Your task to perform on an android device: Go to network settings Image 0: 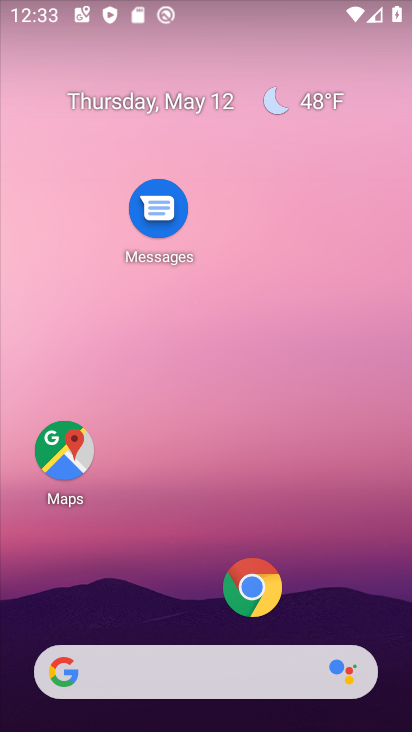
Step 0: drag from (241, 638) to (198, 54)
Your task to perform on an android device: Go to network settings Image 1: 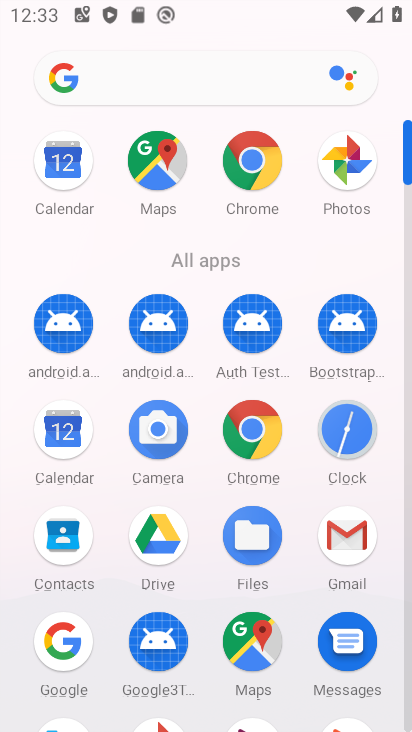
Step 1: drag from (210, 677) to (176, 207)
Your task to perform on an android device: Go to network settings Image 2: 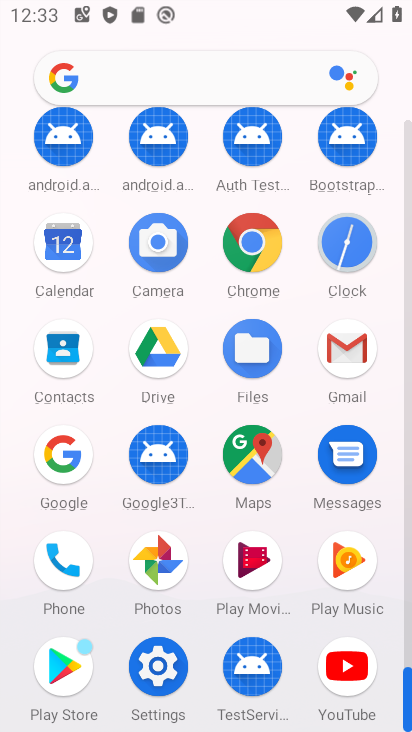
Step 2: click (155, 689)
Your task to perform on an android device: Go to network settings Image 3: 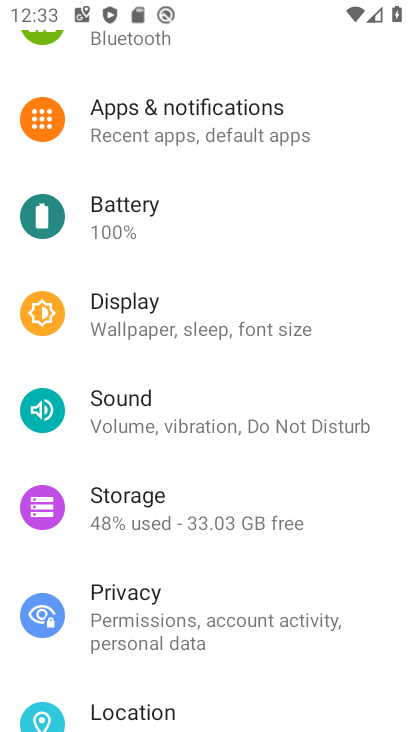
Step 3: drag from (176, 223) to (226, 731)
Your task to perform on an android device: Go to network settings Image 4: 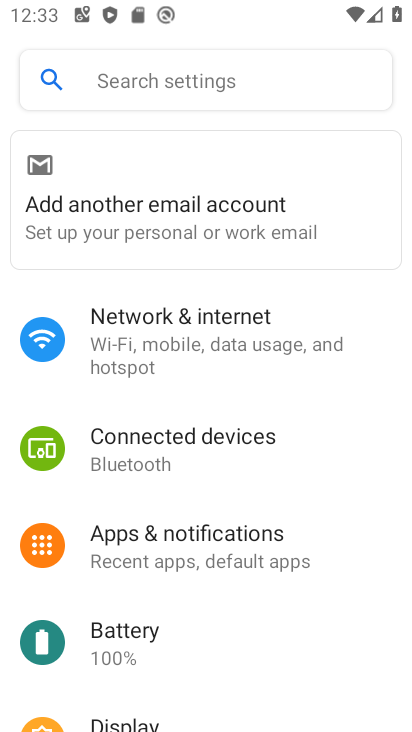
Step 4: click (234, 345)
Your task to perform on an android device: Go to network settings Image 5: 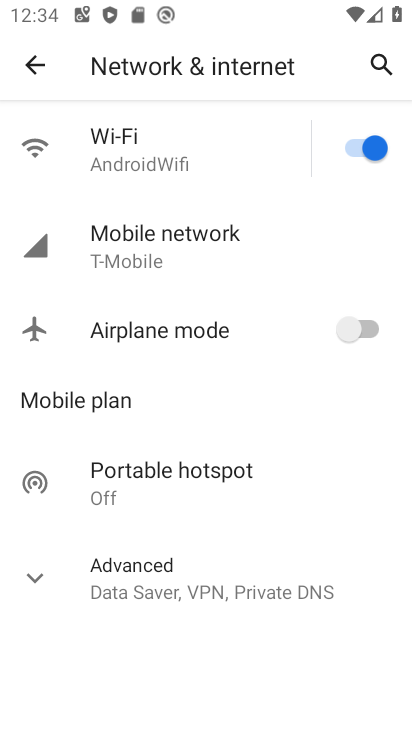
Step 5: click (231, 237)
Your task to perform on an android device: Go to network settings Image 6: 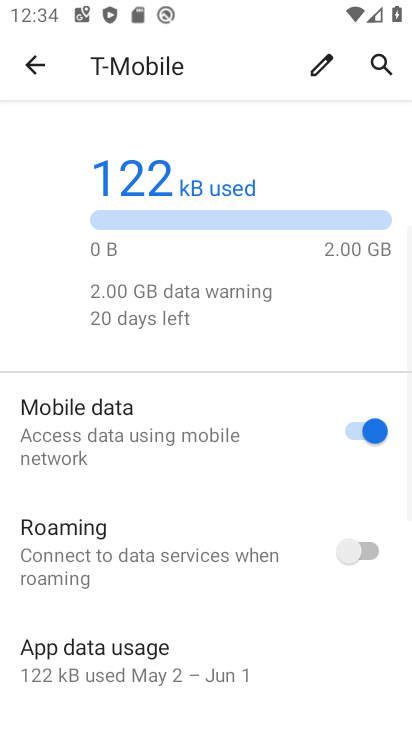
Step 6: task complete